Your task to perform on an android device: Show me productivity apps on the Play Store Image 0: 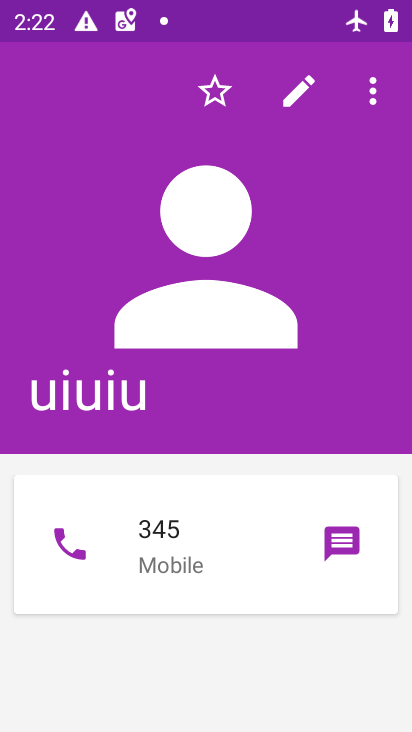
Step 0: press home button
Your task to perform on an android device: Show me productivity apps on the Play Store Image 1: 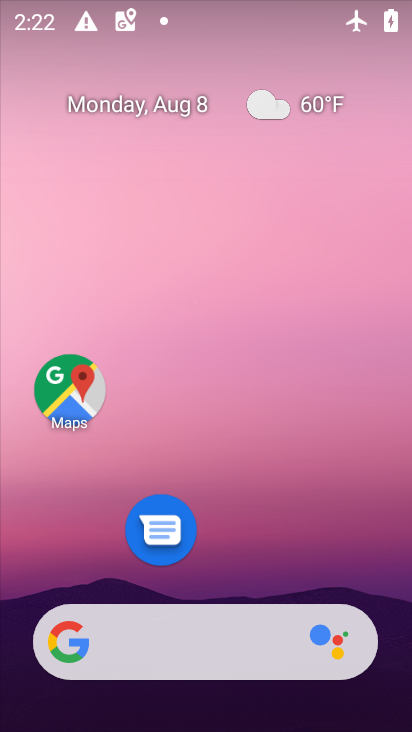
Step 1: drag from (203, 598) to (207, 37)
Your task to perform on an android device: Show me productivity apps on the Play Store Image 2: 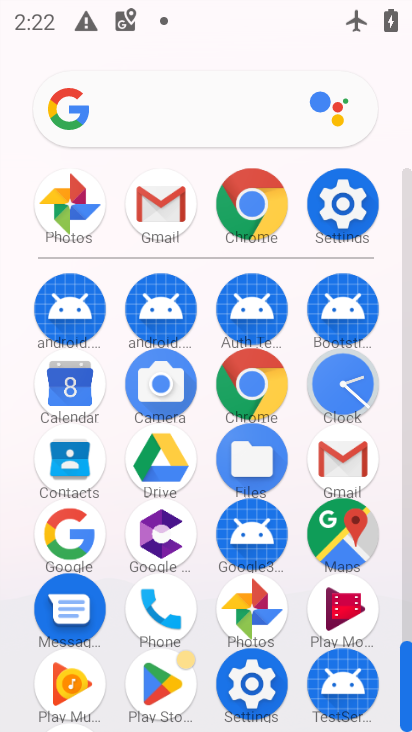
Step 2: click (154, 672)
Your task to perform on an android device: Show me productivity apps on the Play Store Image 3: 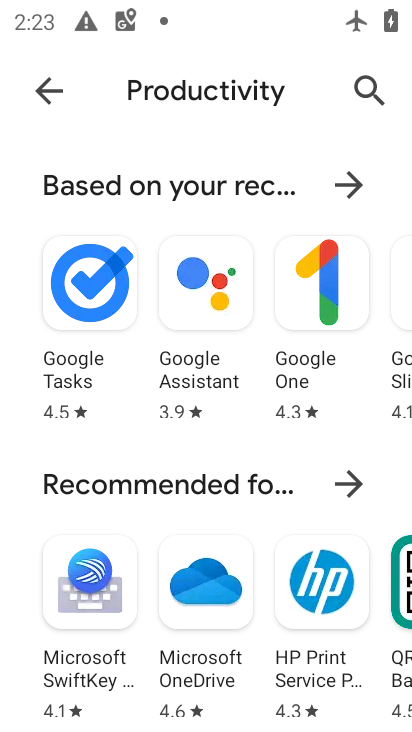
Step 3: task complete